Your task to perform on an android device: Check the weather Image 0: 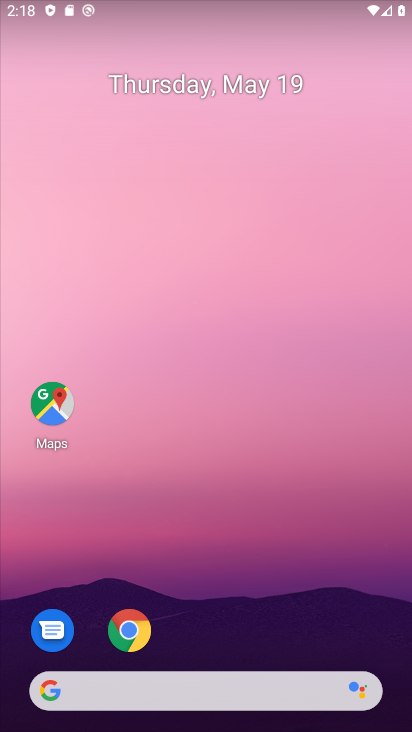
Step 0: drag from (283, 556) to (227, 14)
Your task to perform on an android device: Check the weather Image 1: 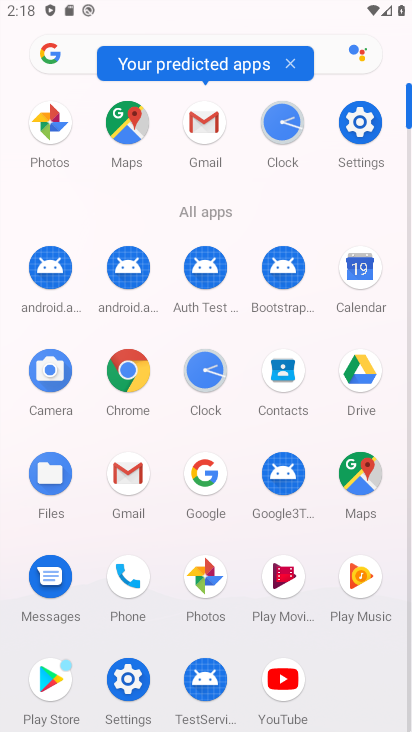
Step 1: click (208, 481)
Your task to perform on an android device: Check the weather Image 2: 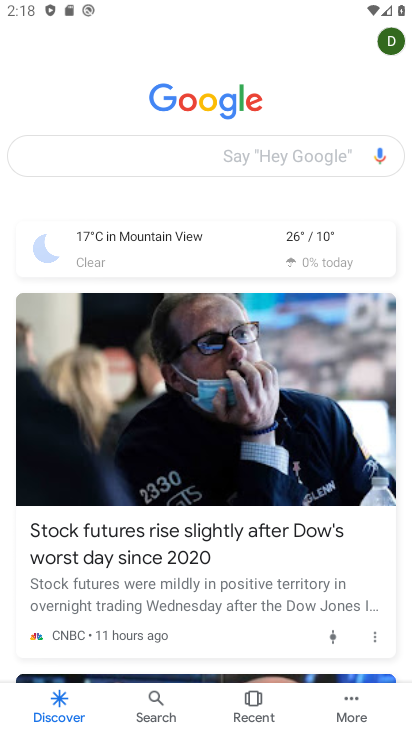
Step 2: click (300, 234)
Your task to perform on an android device: Check the weather Image 3: 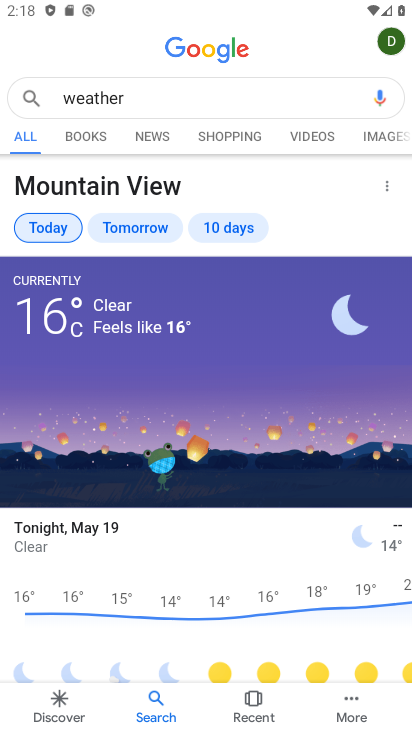
Step 3: task complete